Your task to perform on an android device: move a message to another label in the gmail app Image 0: 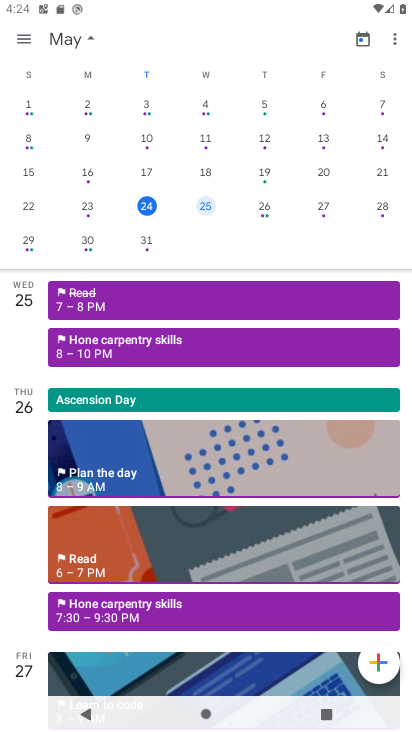
Step 0: press home button
Your task to perform on an android device: move a message to another label in the gmail app Image 1: 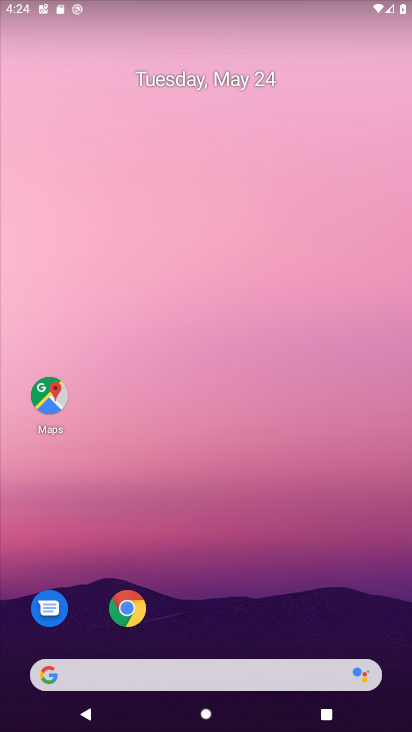
Step 1: drag from (169, 647) to (126, 195)
Your task to perform on an android device: move a message to another label in the gmail app Image 2: 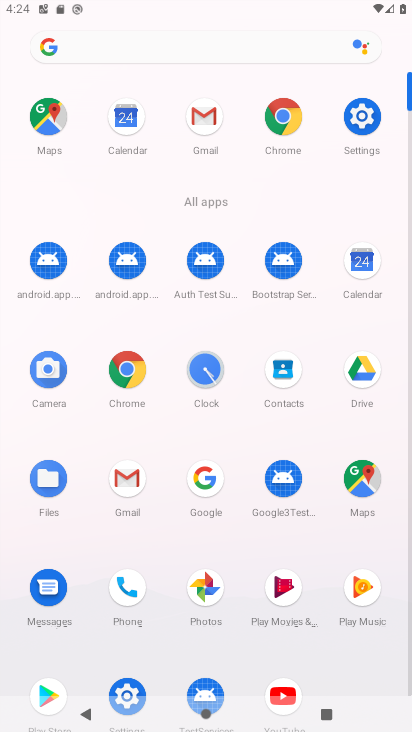
Step 2: click (209, 120)
Your task to perform on an android device: move a message to another label in the gmail app Image 3: 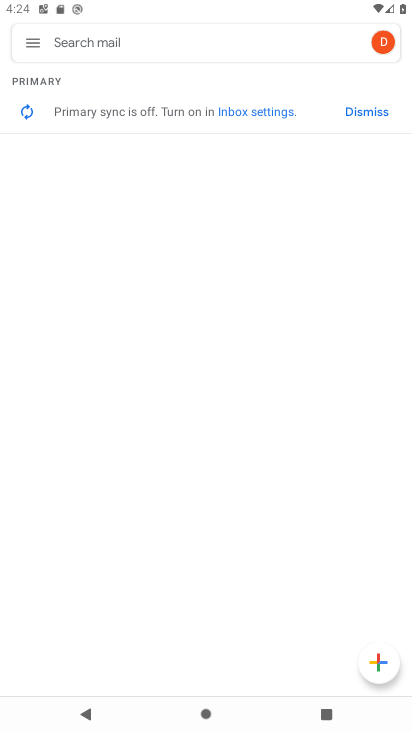
Step 3: click (36, 44)
Your task to perform on an android device: move a message to another label in the gmail app Image 4: 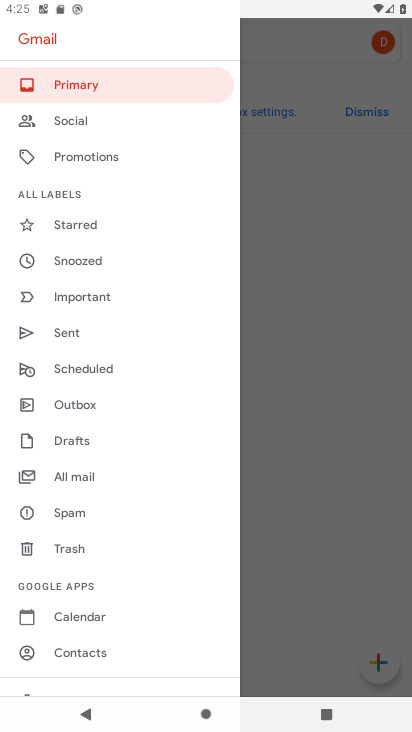
Step 4: click (353, 428)
Your task to perform on an android device: move a message to another label in the gmail app Image 5: 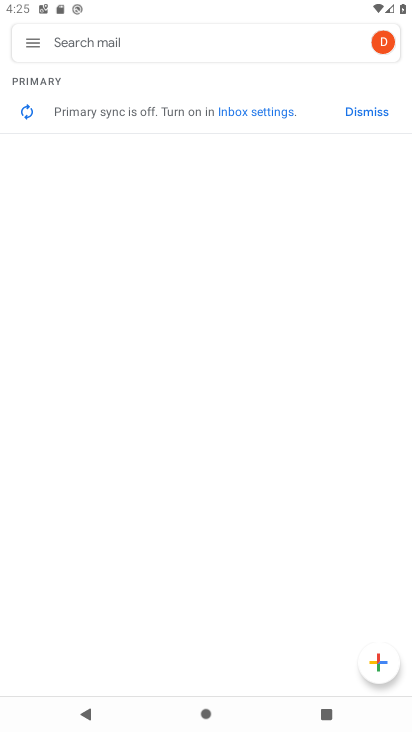
Step 5: task complete